Your task to perform on an android device: turn off javascript in the chrome app Image 0: 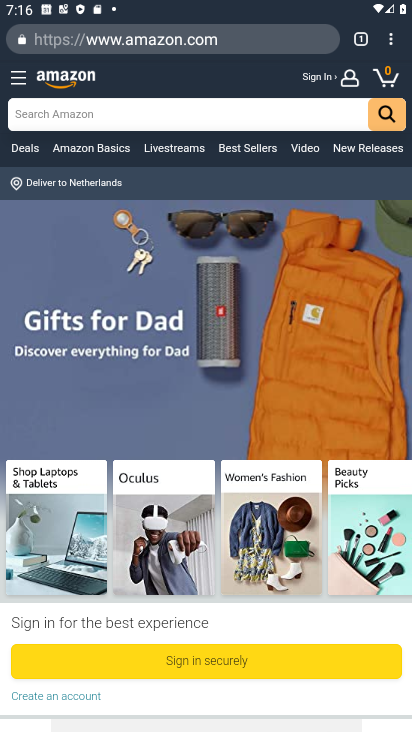
Step 0: press home button
Your task to perform on an android device: turn off javascript in the chrome app Image 1: 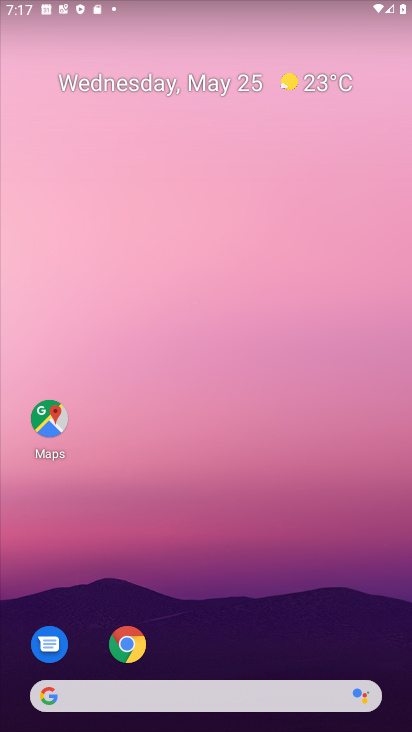
Step 1: drag from (272, 601) to (229, 275)
Your task to perform on an android device: turn off javascript in the chrome app Image 2: 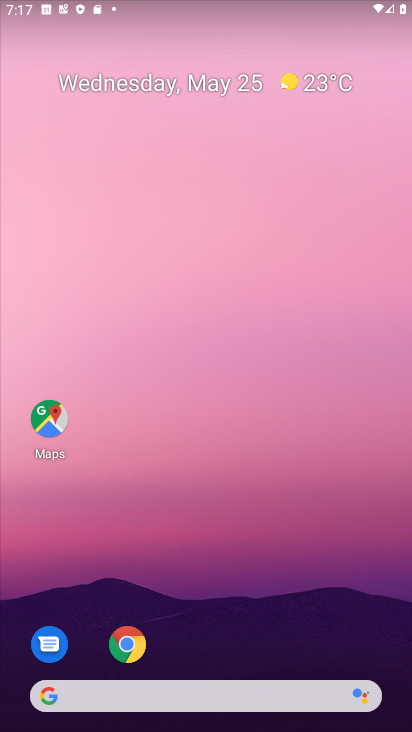
Step 2: drag from (241, 634) to (264, 146)
Your task to perform on an android device: turn off javascript in the chrome app Image 3: 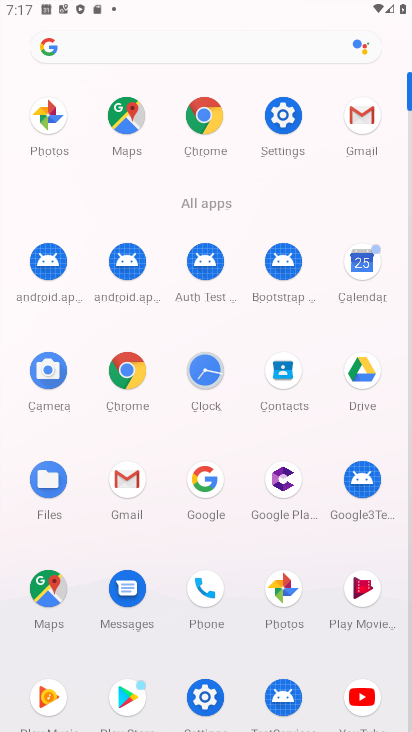
Step 3: click (188, 117)
Your task to perform on an android device: turn off javascript in the chrome app Image 4: 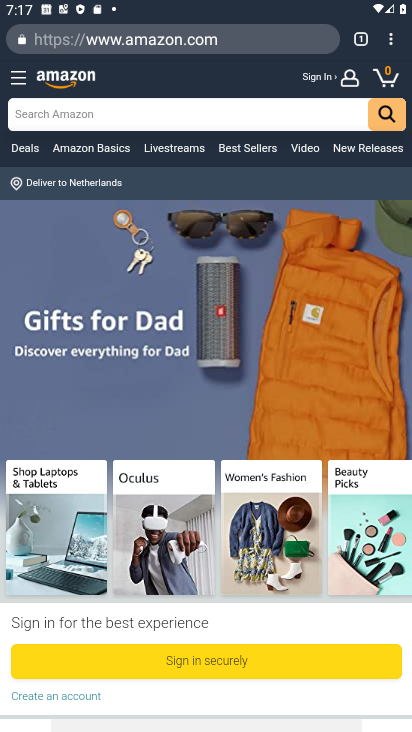
Step 4: click (388, 42)
Your task to perform on an android device: turn off javascript in the chrome app Image 5: 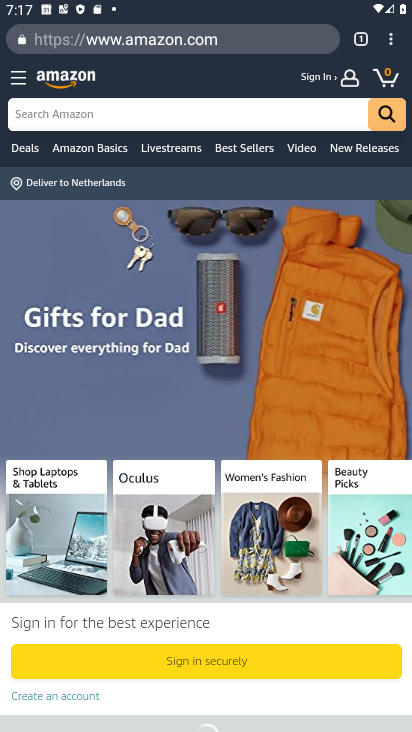
Step 5: click (392, 43)
Your task to perform on an android device: turn off javascript in the chrome app Image 6: 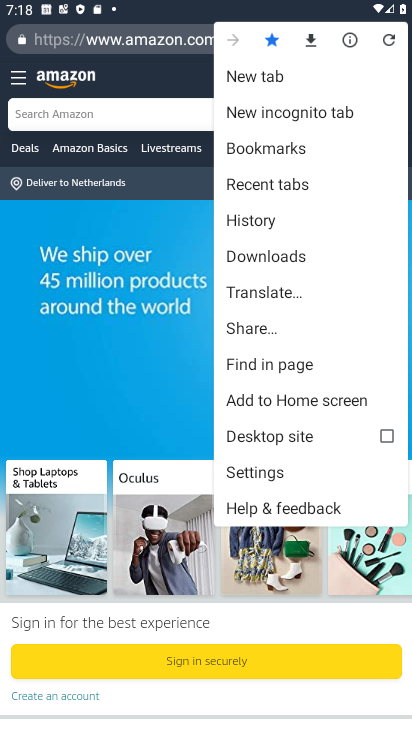
Step 6: click (255, 471)
Your task to perform on an android device: turn off javascript in the chrome app Image 7: 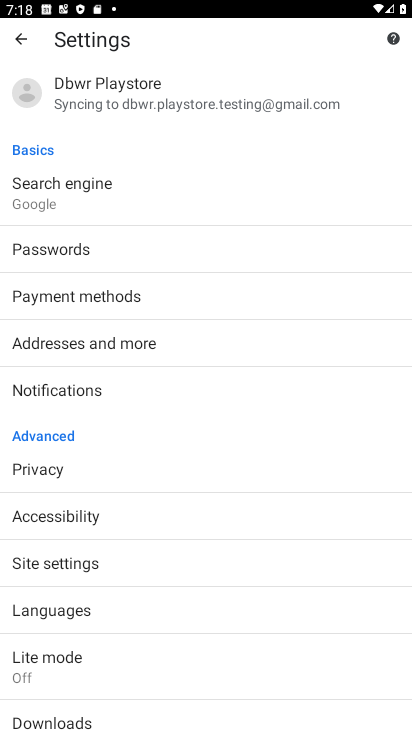
Step 7: click (58, 565)
Your task to perform on an android device: turn off javascript in the chrome app Image 8: 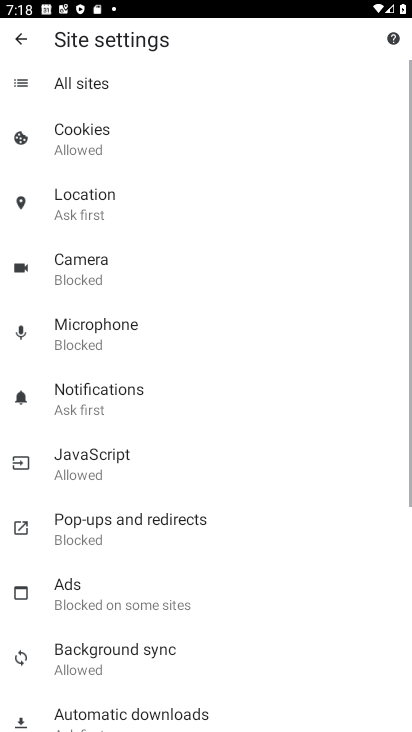
Step 8: click (116, 468)
Your task to perform on an android device: turn off javascript in the chrome app Image 9: 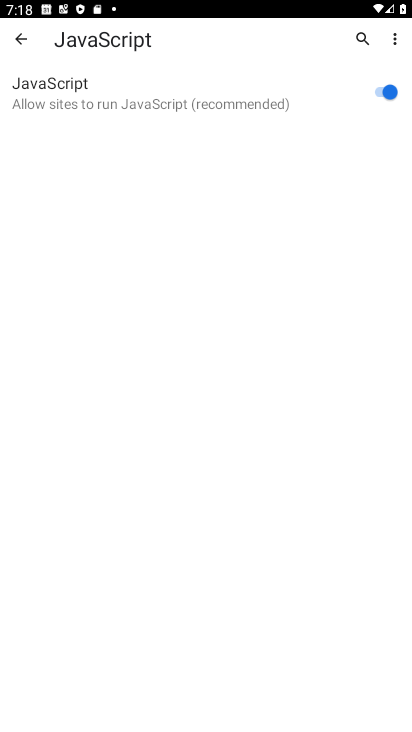
Step 9: click (395, 85)
Your task to perform on an android device: turn off javascript in the chrome app Image 10: 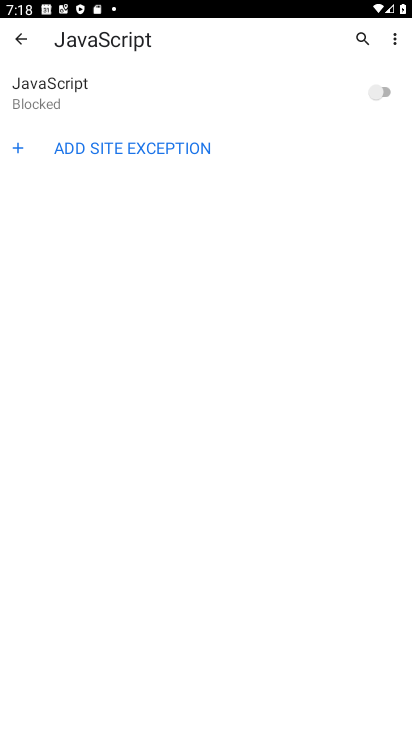
Step 10: task complete